Your task to perform on an android device: Open Chrome and go to the settings page Image 0: 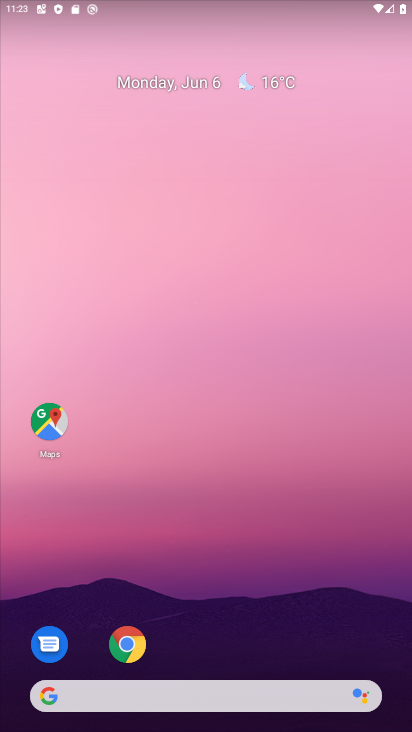
Step 0: drag from (291, 610) to (210, 60)
Your task to perform on an android device: Open Chrome and go to the settings page Image 1: 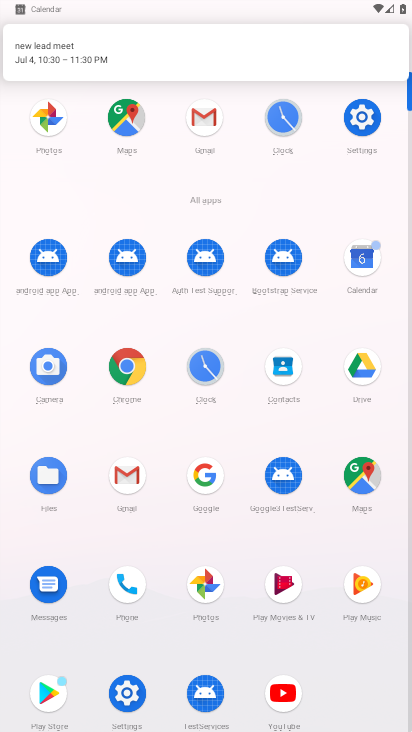
Step 1: click (126, 365)
Your task to perform on an android device: Open Chrome and go to the settings page Image 2: 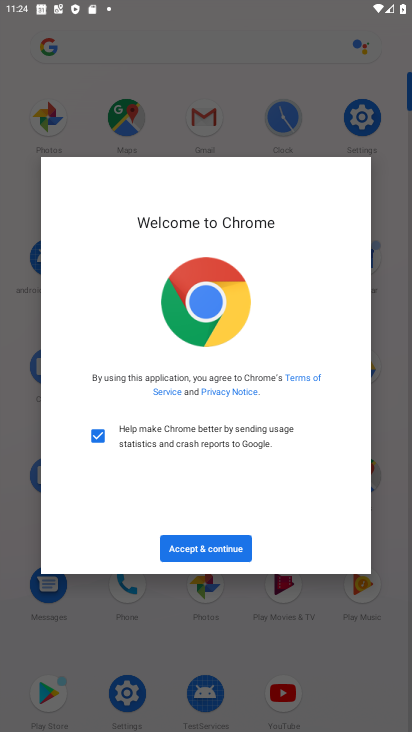
Step 2: click (224, 533)
Your task to perform on an android device: Open Chrome and go to the settings page Image 3: 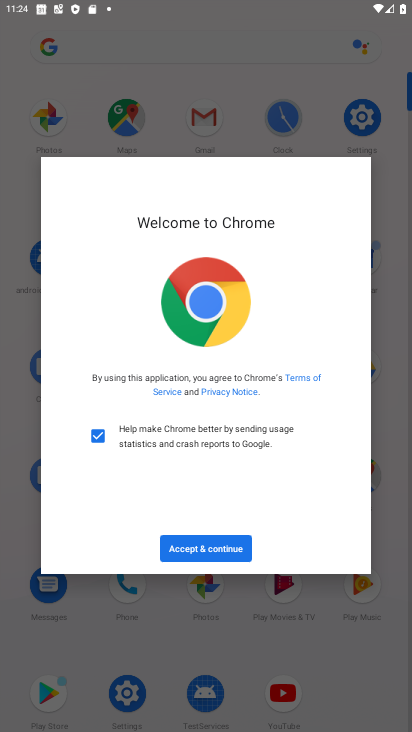
Step 3: click (229, 541)
Your task to perform on an android device: Open Chrome and go to the settings page Image 4: 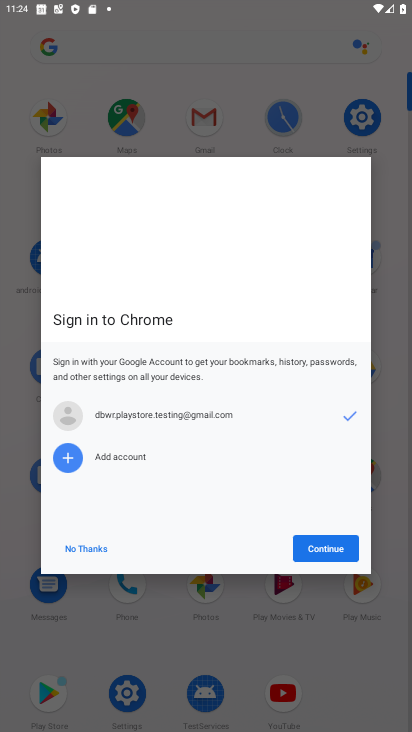
Step 4: click (329, 542)
Your task to perform on an android device: Open Chrome and go to the settings page Image 5: 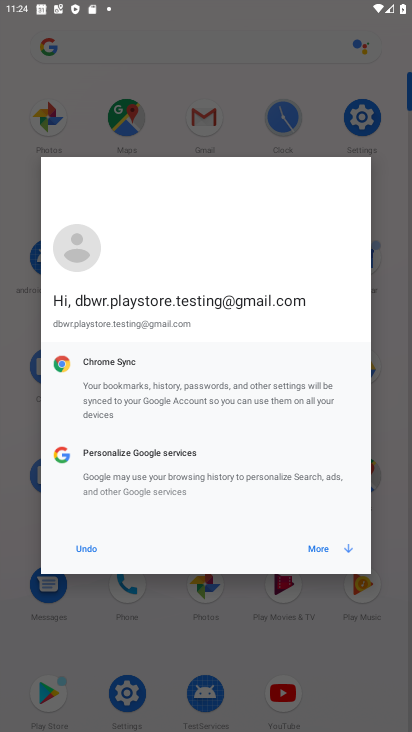
Step 5: click (319, 546)
Your task to perform on an android device: Open Chrome and go to the settings page Image 6: 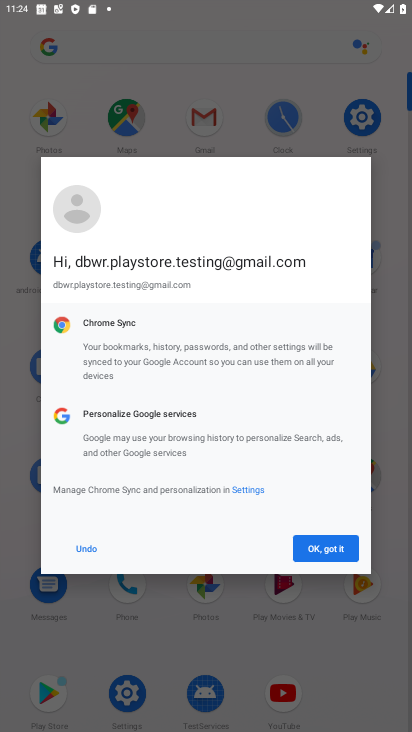
Step 6: click (317, 545)
Your task to perform on an android device: Open Chrome and go to the settings page Image 7: 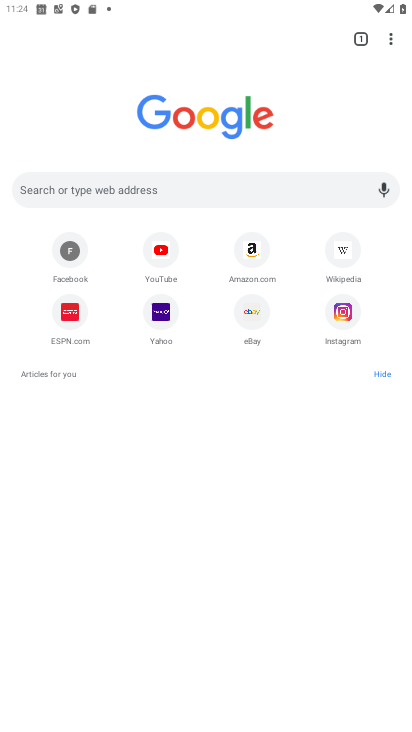
Step 7: task complete